Your task to perform on an android device: open app "Pinterest" Image 0: 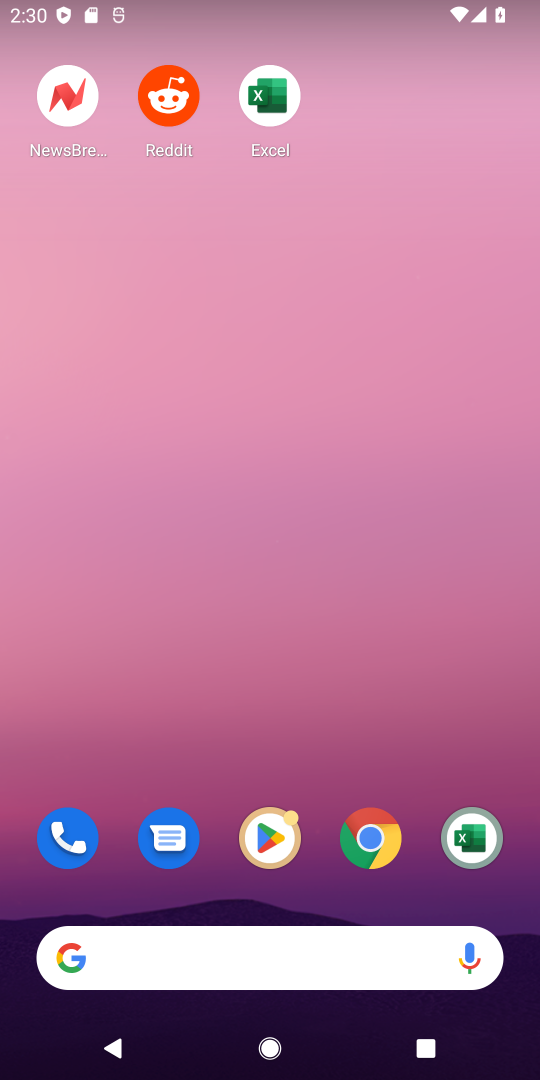
Step 0: press home button
Your task to perform on an android device: open app "Pinterest" Image 1: 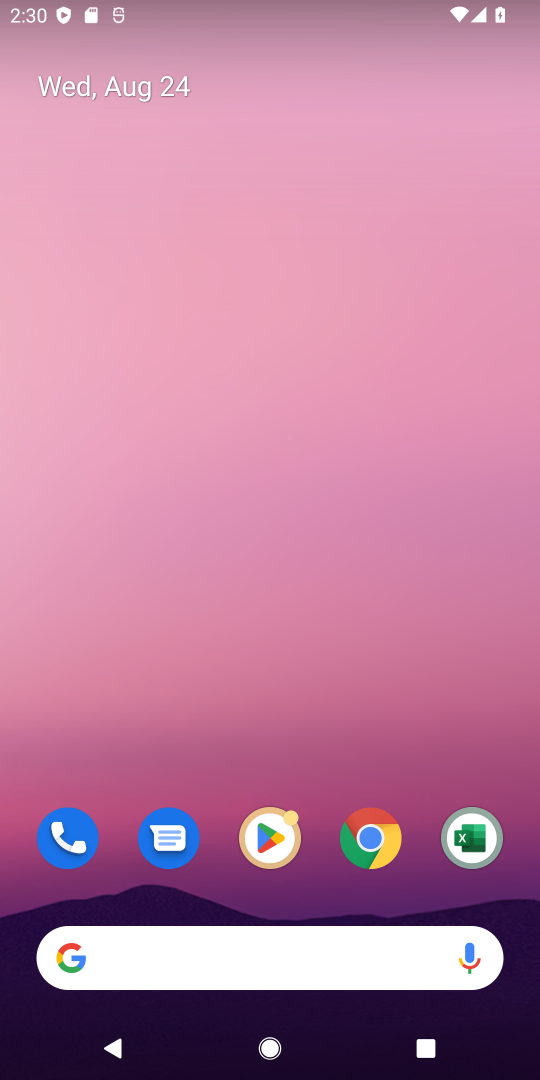
Step 1: drag from (428, 746) to (434, 126)
Your task to perform on an android device: open app "Pinterest" Image 2: 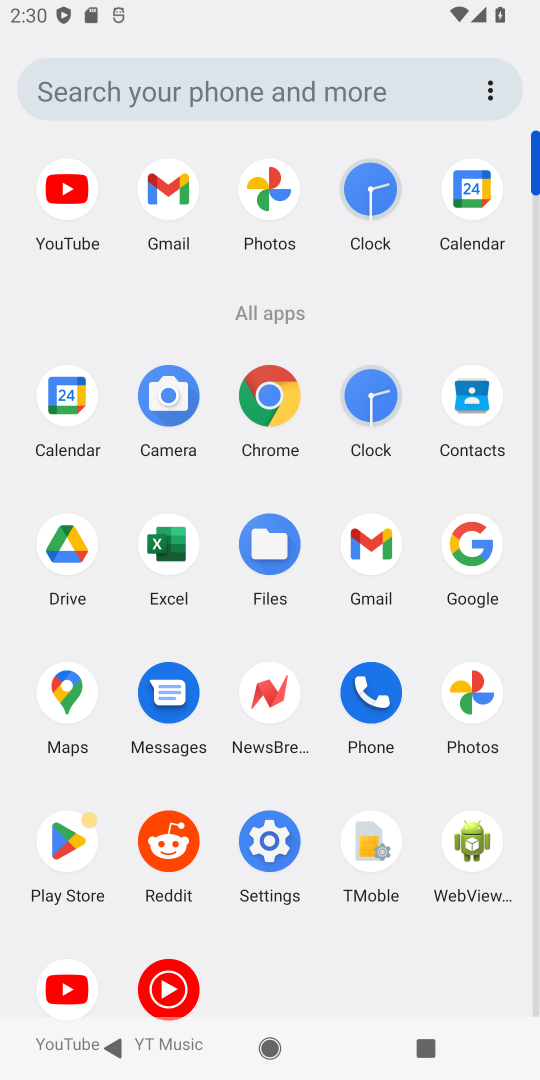
Step 2: click (72, 841)
Your task to perform on an android device: open app "Pinterest" Image 3: 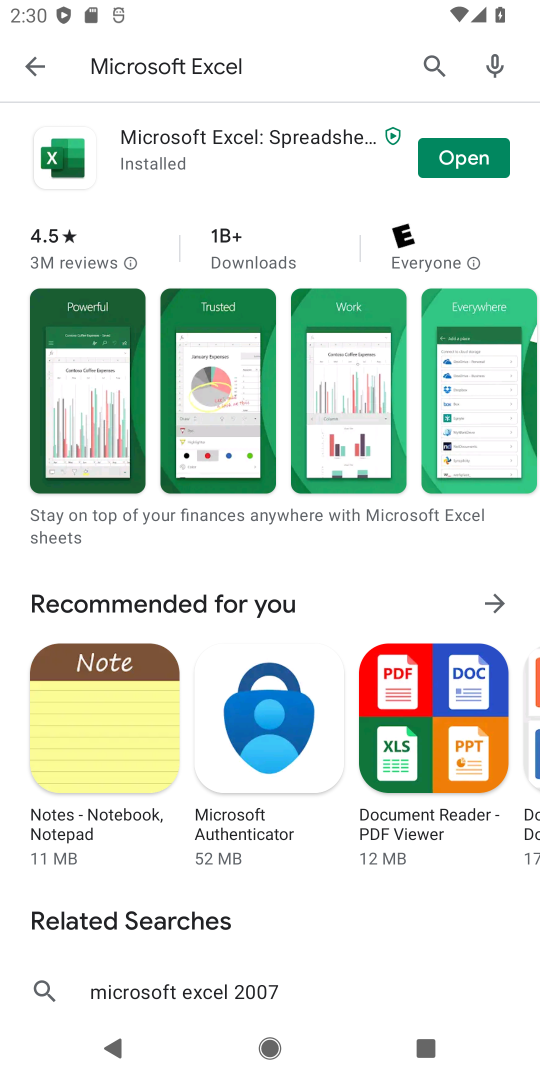
Step 3: press back button
Your task to perform on an android device: open app "Pinterest" Image 4: 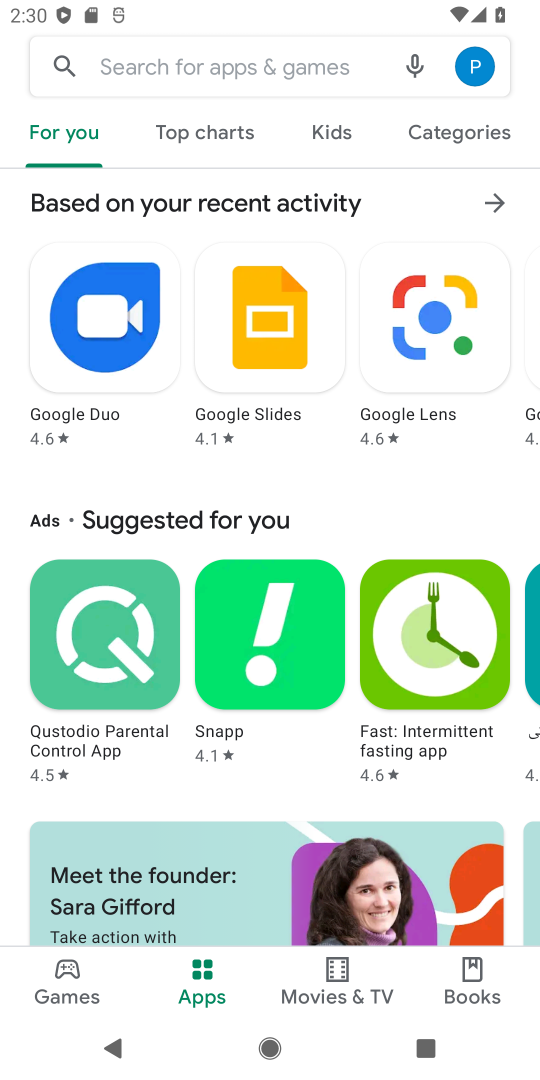
Step 4: click (313, 66)
Your task to perform on an android device: open app "Pinterest" Image 5: 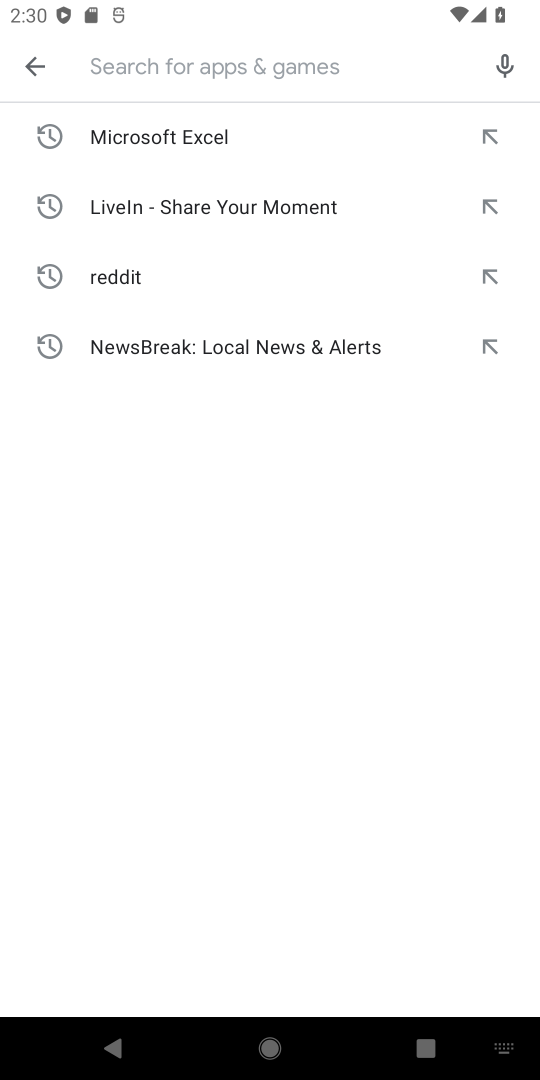
Step 5: type "pinterest"
Your task to perform on an android device: open app "Pinterest" Image 6: 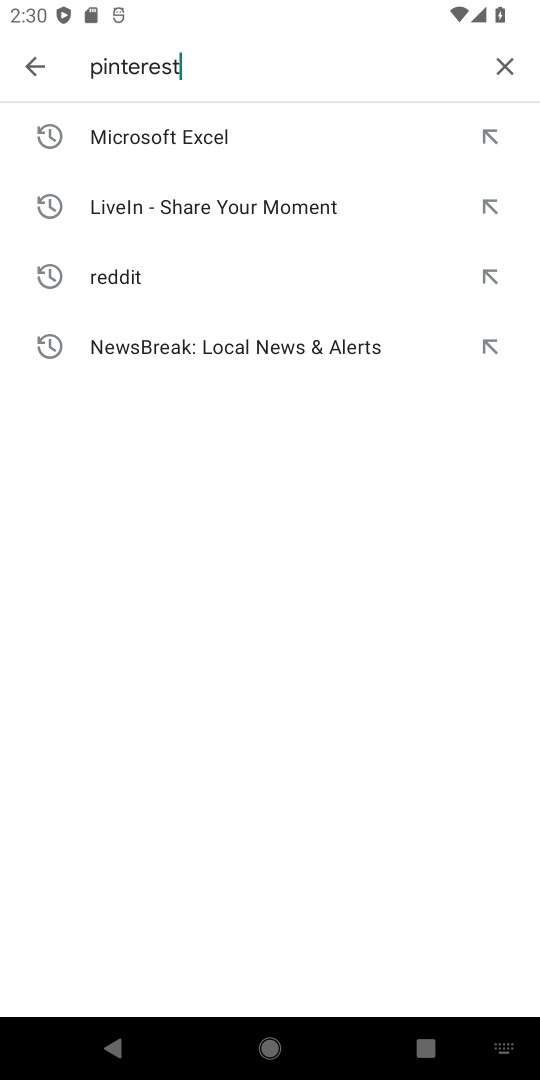
Step 6: press enter
Your task to perform on an android device: open app "Pinterest" Image 7: 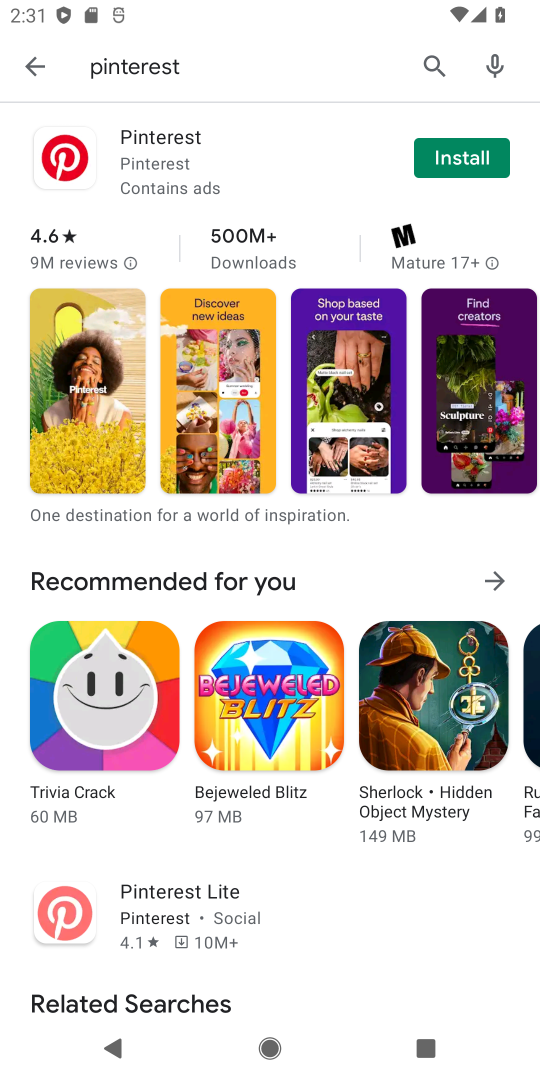
Step 7: task complete